Your task to perform on an android device: allow cookies in the chrome app Image 0: 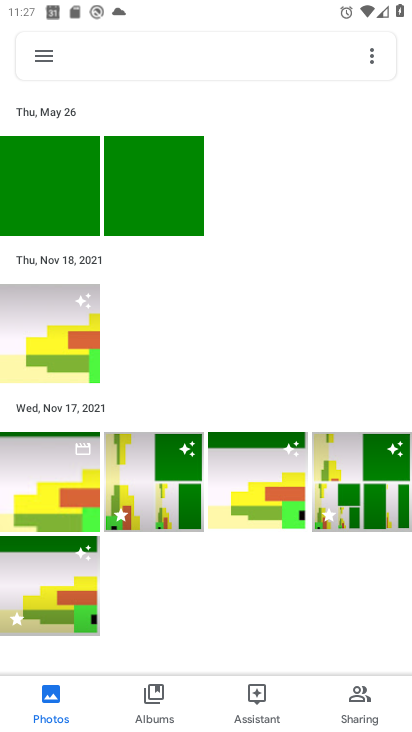
Step 0: drag from (259, 718) to (165, 152)
Your task to perform on an android device: allow cookies in the chrome app Image 1: 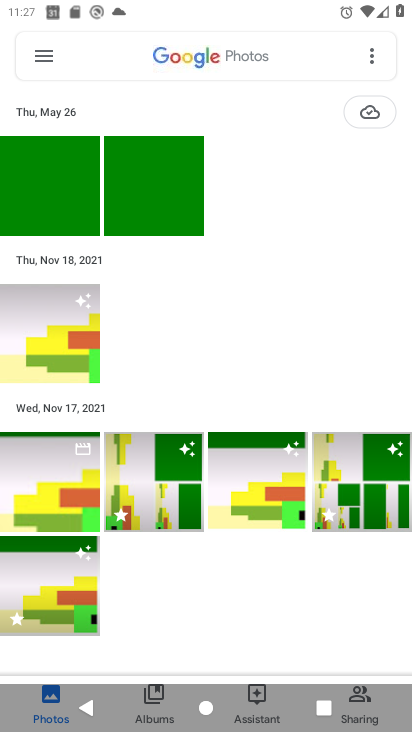
Step 1: press back button
Your task to perform on an android device: allow cookies in the chrome app Image 2: 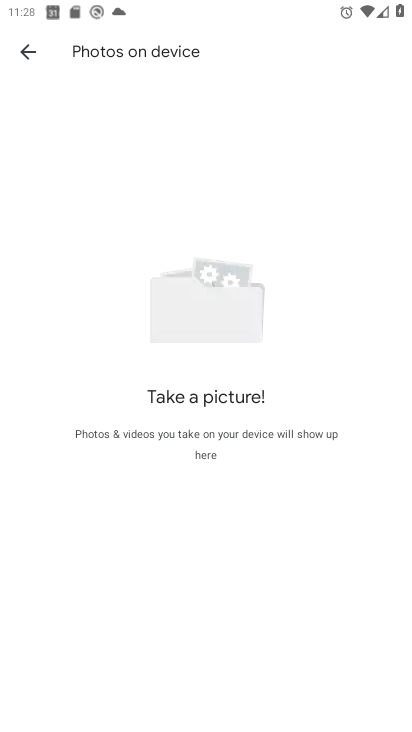
Step 2: click (36, 52)
Your task to perform on an android device: allow cookies in the chrome app Image 3: 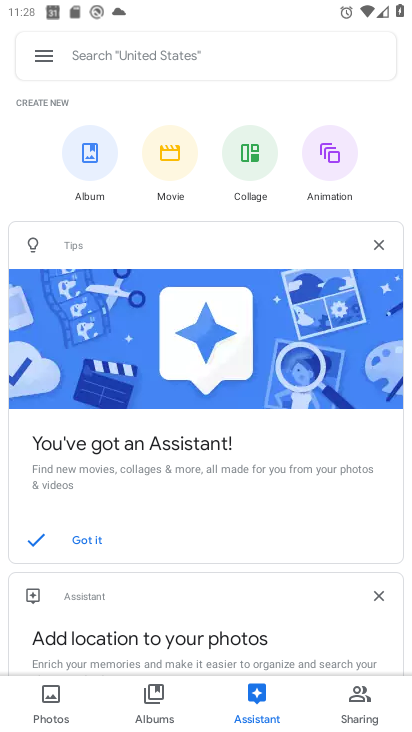
Step 3: press home button
Your task to perform on an android device: allow cookies in the chrome app Image 4: 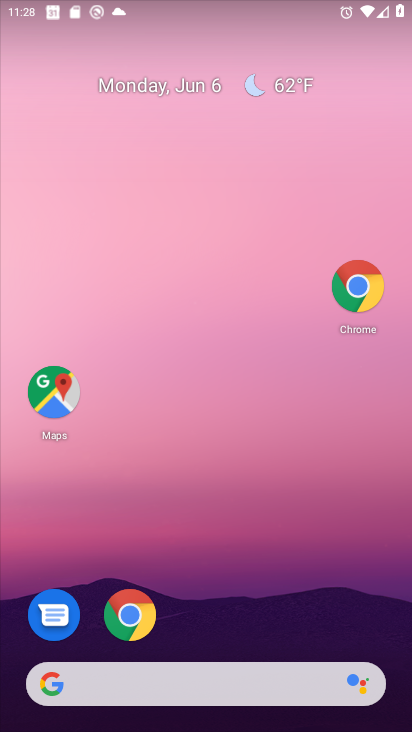
Step 4: drag from (203, 621) to (85, 197)
Your task to perform on an android device: allow cookies in the chrome app Image 5: 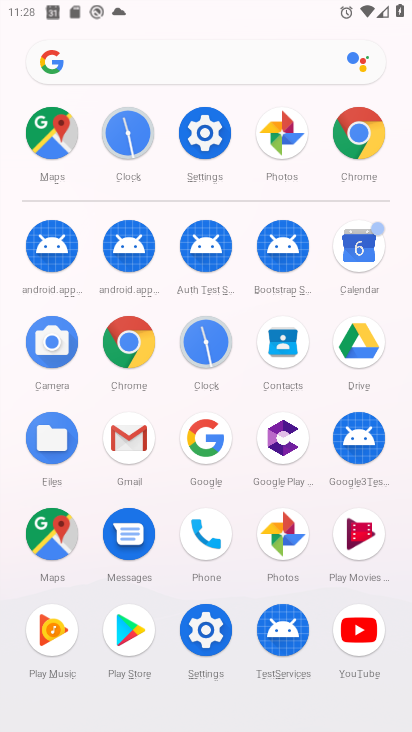
Step 5: click (357, 142)
Your task to perform on an android device: allow cookies in the chrome app Image 6: 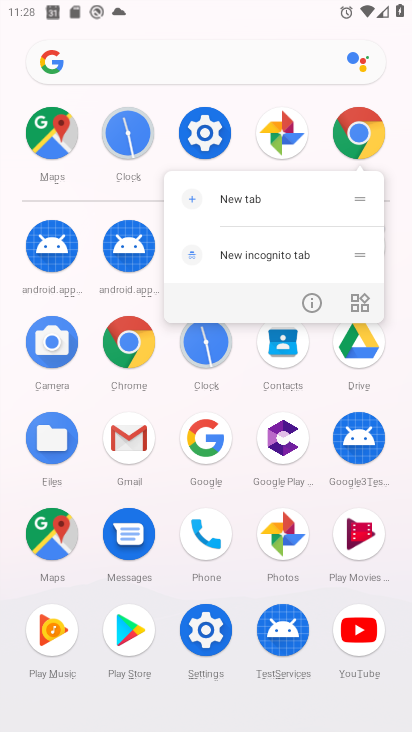
Step 6: click (363, 132)
Your task to perform on an android device: allow cookies in the chrome app Image 7: 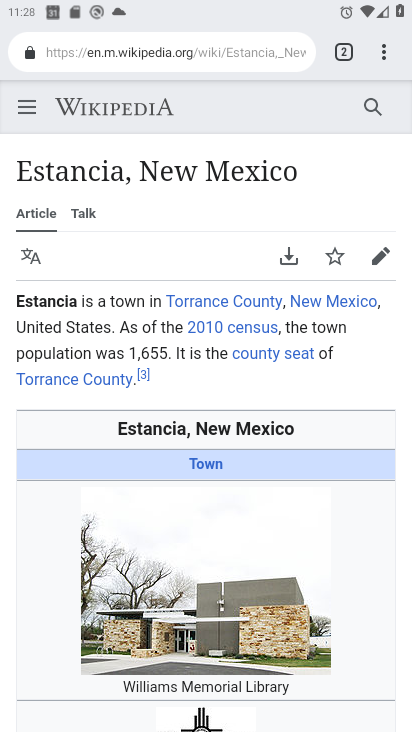
Step 7: click (377, 48)
Your task to perform on an android device: allow cookies in the chrome app Image 8: 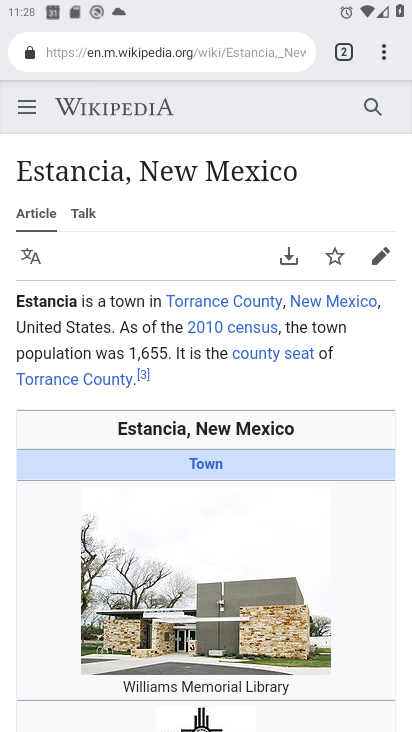
Step 8: drag from (377, 48) to (192, 628)
Your task to perform on an android device: allow cookies in the chrome app Image 9: 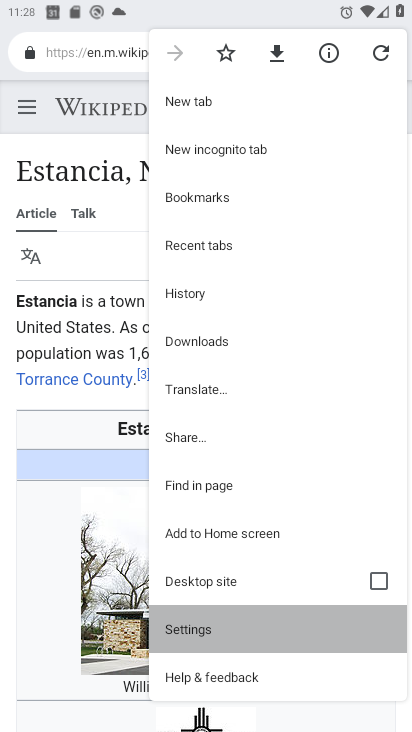
Step 9: click (192, 628)
Your task to perform on an android device: allow cookies in the chrome app Image 10: 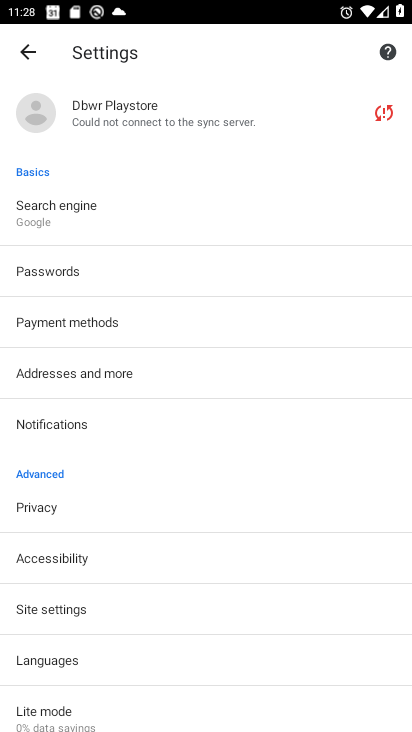
Step 10: click (45, 609)
Your task to perform on an android device: allow cookies in the chrome app Image 11: 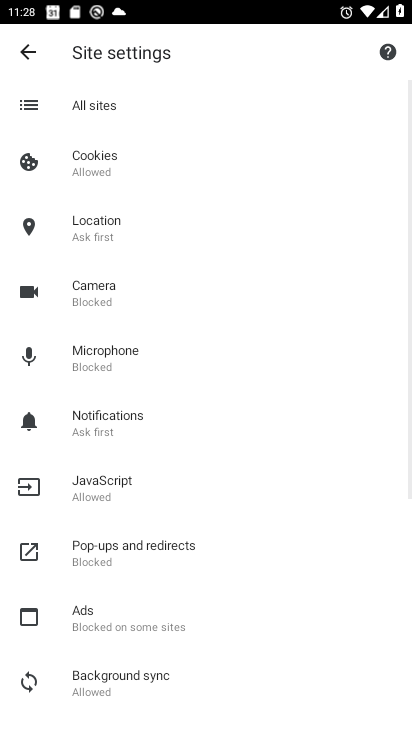
Step 11: click (94, 151)
Your task to perform on an android device: allow cookies in the chrome app Image 12: 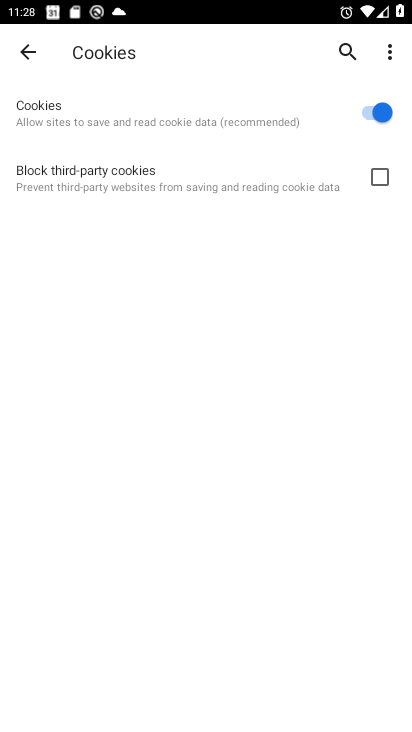
Step 12: task complete